Your task to perform on an android device: delete location history Image 0: 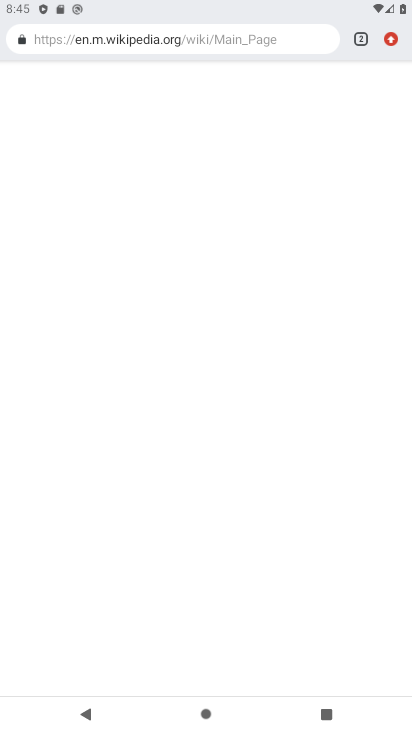
Step 0: press home button
Your task to perform on an android device: delete location history Image 1: 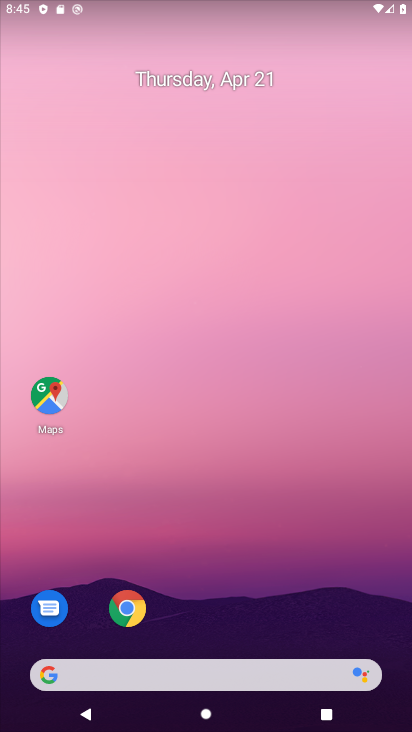
Step 1: click (44, 404)
Your task to perform on an android device: delete location history Image 2: 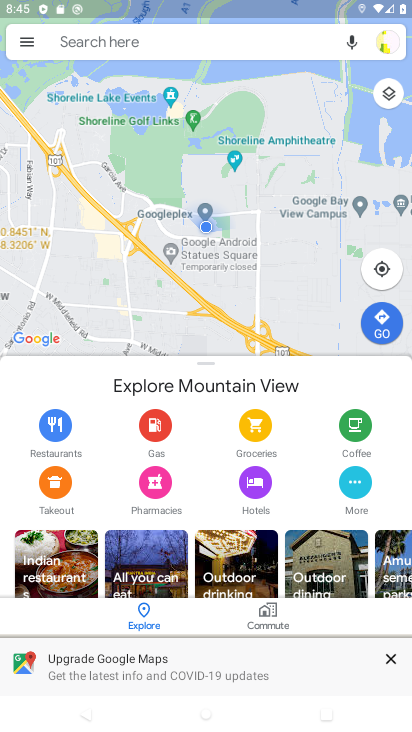
Step 2: click (22, 36)
Your task to perform on an android device: delete location history Image 3: 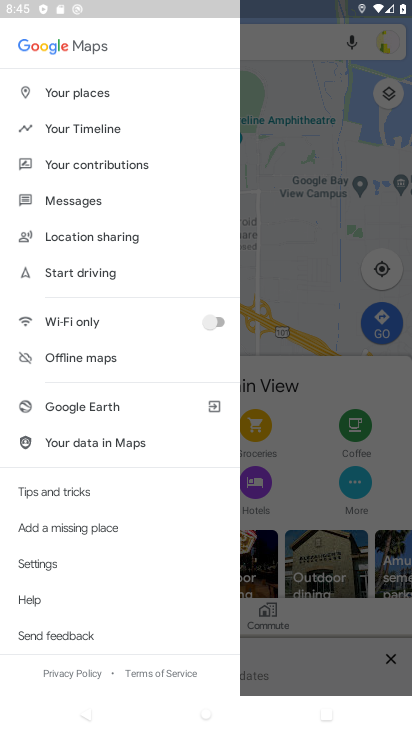
Step 3: click (95, 131)
Your task to perform on an android device: delete location history Image 4: 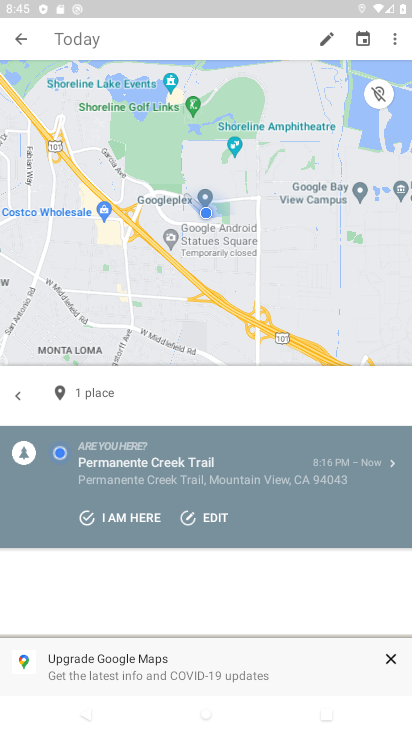
Step 4: click (394, 42)
Your task to perform on an android device: delete location history Image 5: 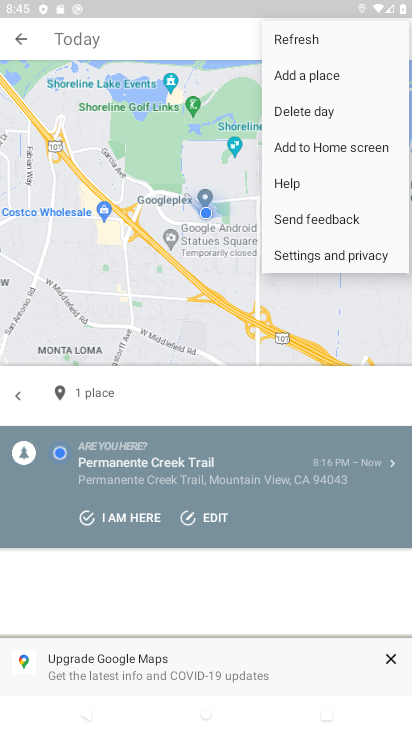
Step 5: click (345, 253)
Your task to perform on an android device: delete location history Image 6: 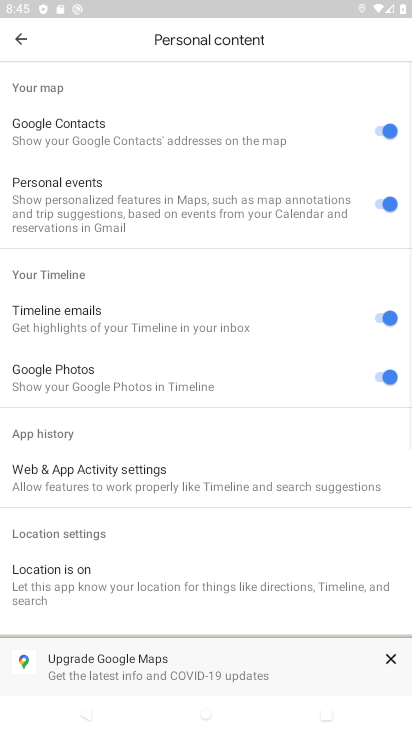
Step 6: drag from (286, 531) to (251, 111)
Your task to perform on an android device: delete location history Image 7: 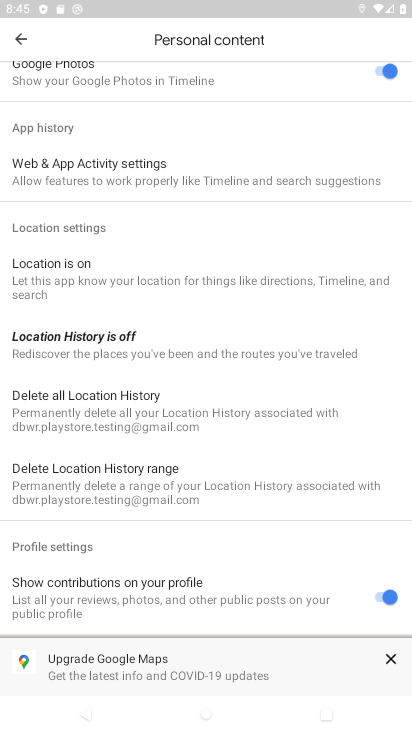
Step 7: click (230, 425)
Your task to perform on an android device: delete location history Image 8: 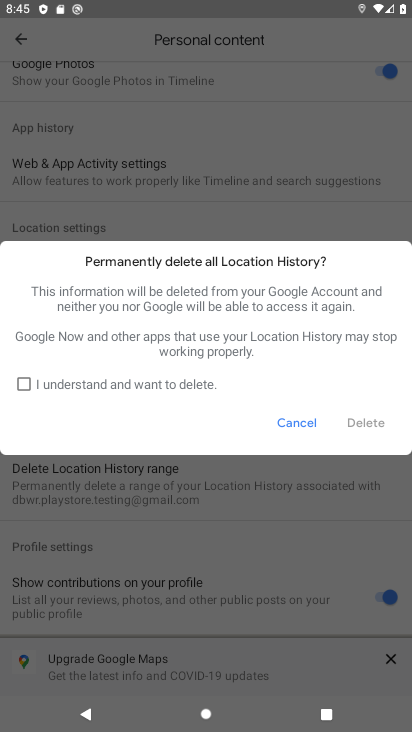
Step 8: click (192, 384)
Your task to perform on an android device: delete location history Image 9: 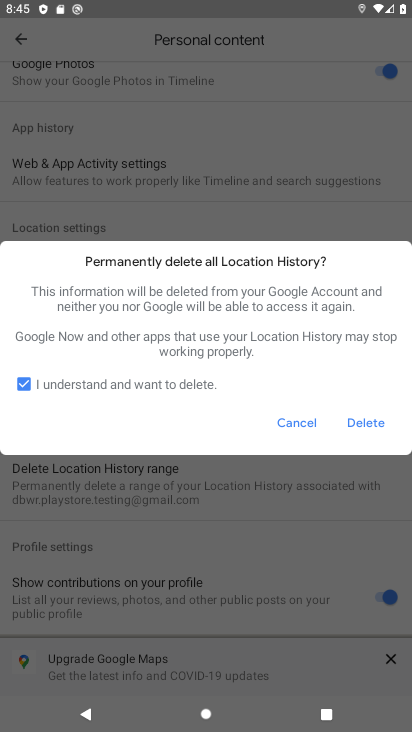
Step 9: click (379, 430)
Your task to perform on an android device: delete location history Image 10: 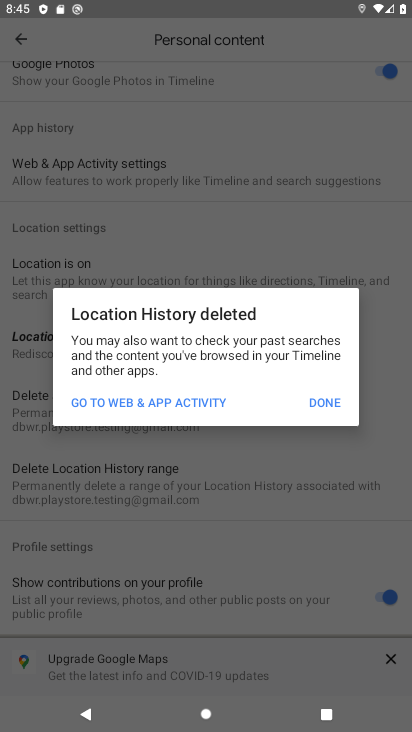
Step 10: click (326, 411)
Your task to perform on an android device: delete location history Image 11: 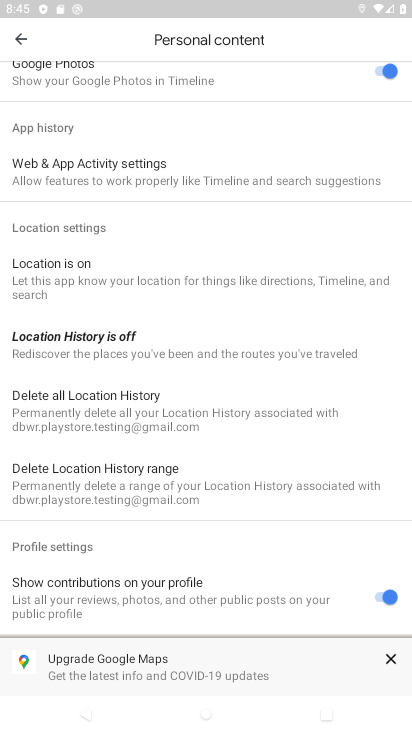
Step 11: task complete